Your task to perform on an android device: Search for vegetarian restaurants on Maps Image 0: 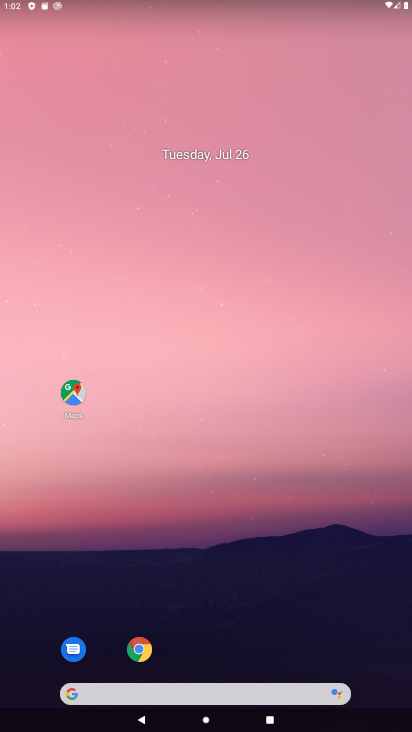
Step 0: press home button
Your task to perform on an android device: Search for vegetarian restaurants on Maps Image 1: 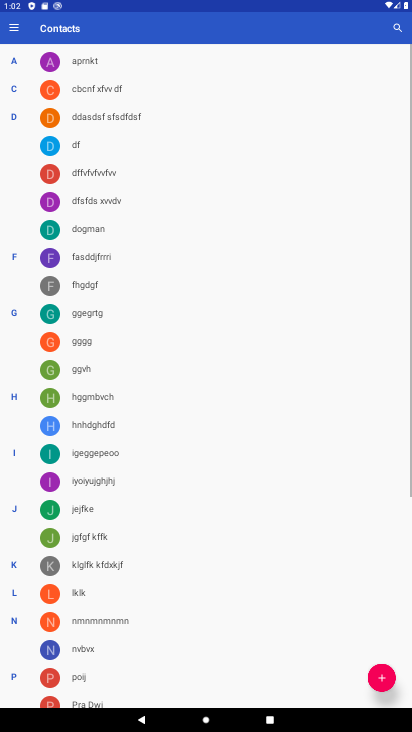
Step 1: drag from (126, 133) to (88, 43)
Your task to perform on an android device: Search for vegetarian restaurants on Maps Image 2: 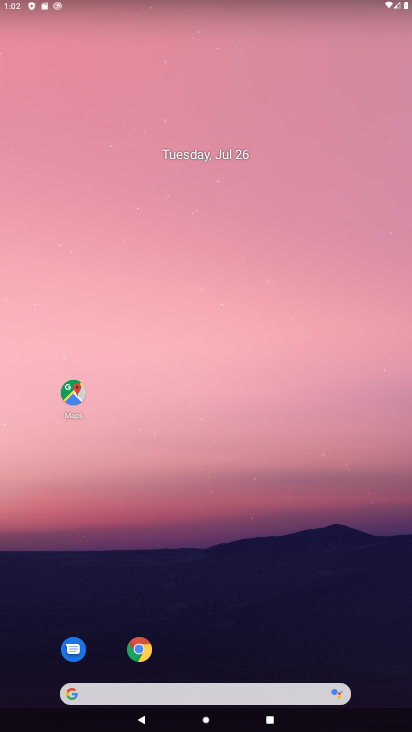
Step 2: drag from (369, 616) to (196, 49)
Your task to perform on an android device: Search for vegetarian restaurants on Maps Image 3: 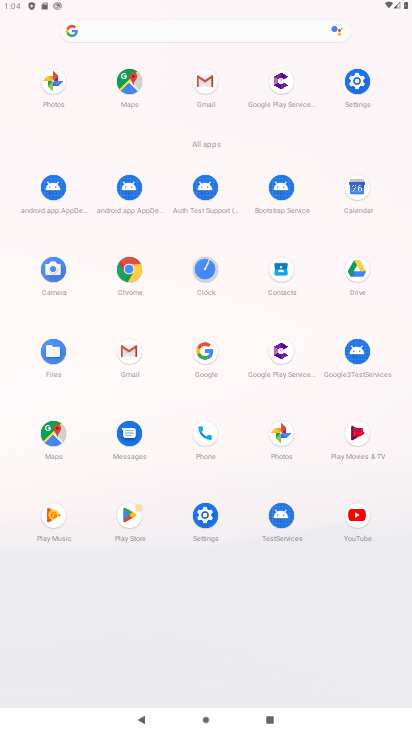
Step 3: click (42, 428)
Your task to perform on an android device: Search for vegetarian restaurants on Maps Image 4: 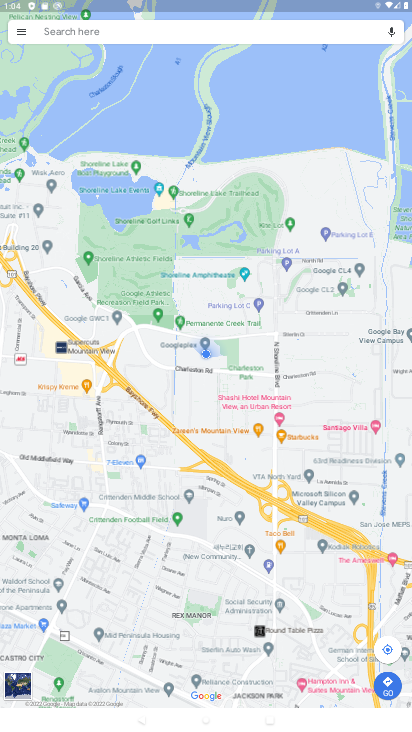
Step 4: click (89, 18)
Your task to perform on an android device: Search for vegetarian restaurants on Maps Image 5: 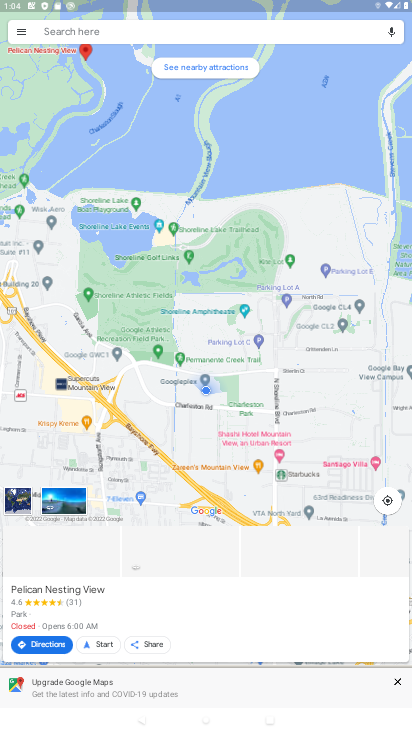
Step 5: click (97, 26)
Your task to perform on an android device: Search for vegetarian restaurants on Maps Image 6: 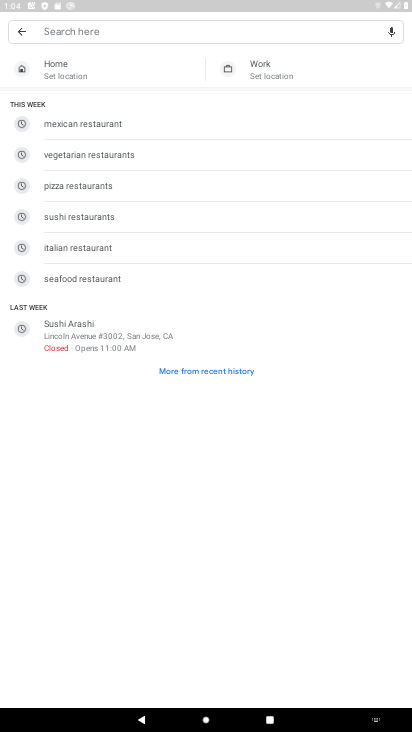
Step 6: click (69, 161)
Your task to perform on an android device: Search for vegetarian restaurants on Maps Image 7: 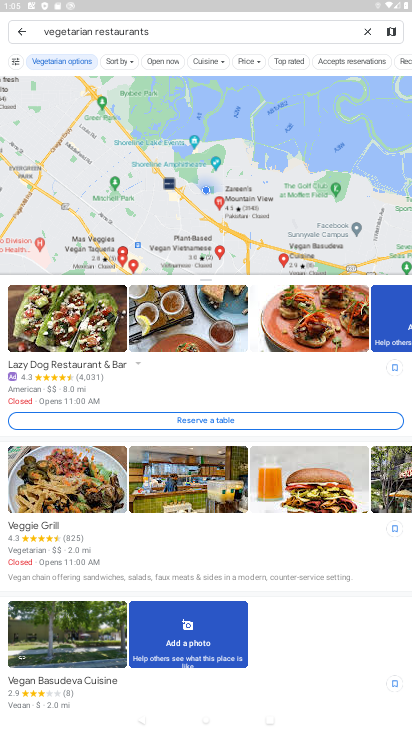
Step 7: task complete